Your task to perform on an android device: Empty the shopping cart on ebay. Search for "macbook pro 13 inch" on ebay, select the first entry, and add it to the cart. Image 0: 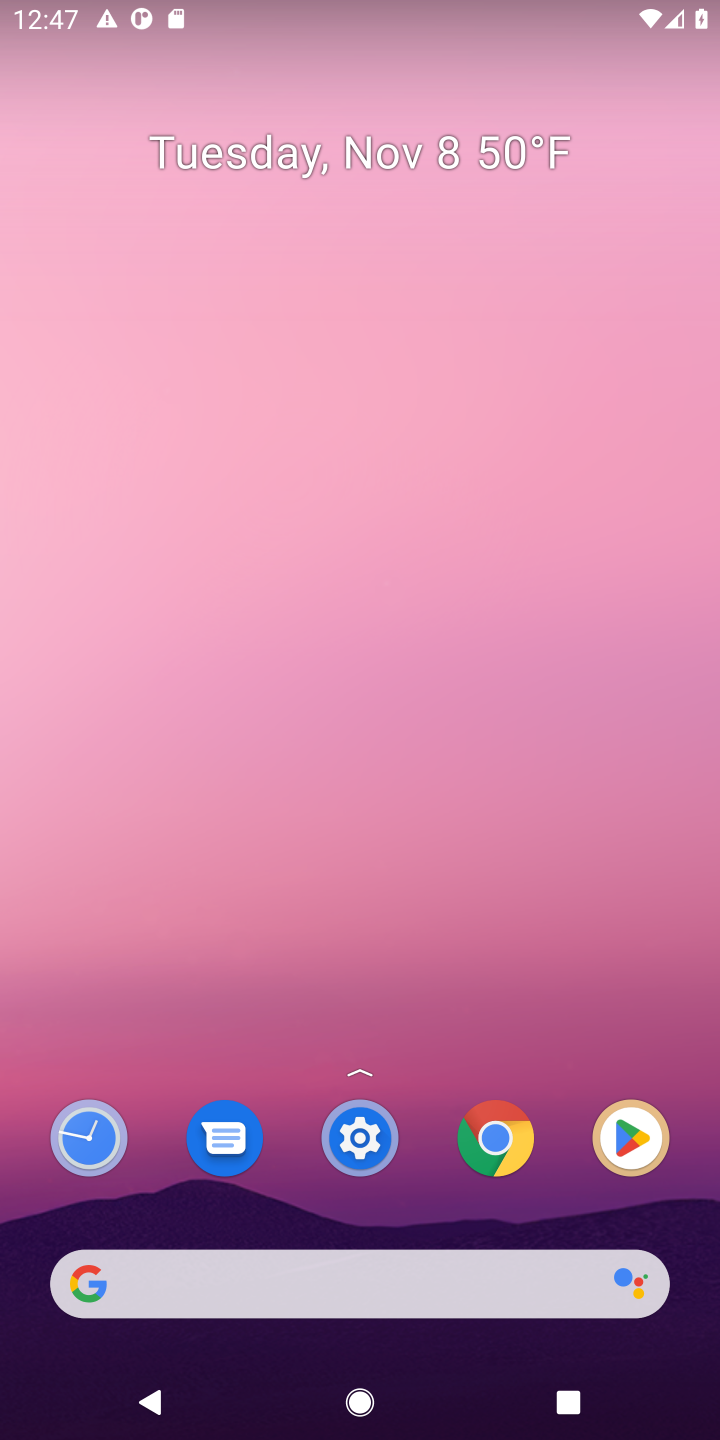
Step 0: click (313, 1300)
Your task to perform on an android device: Empty the shopping cart on ebay. Search for "macbook pro 13 inch" on ebay, select the first entry, and add it to the cart. Image 1: 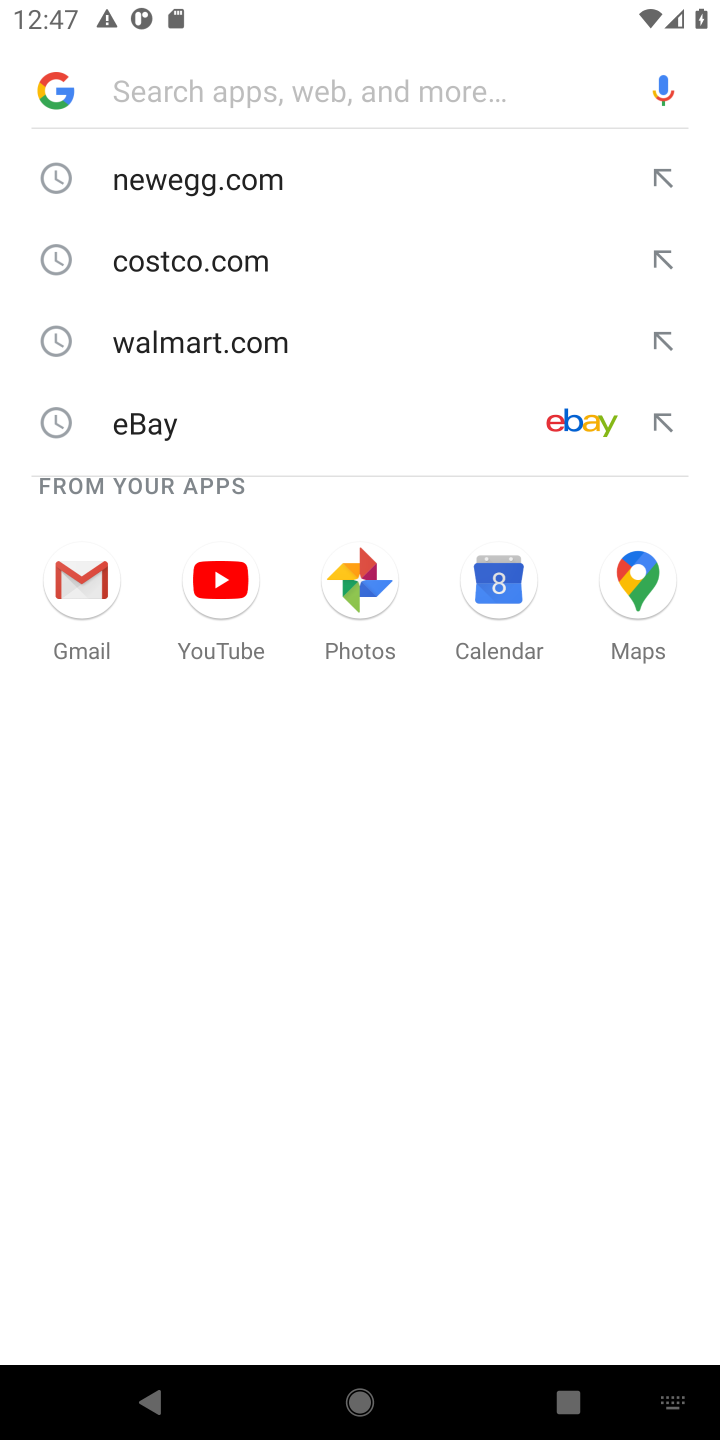
Step 1: click (254, 400)
Your task to perform on an android device: Empty the shopping cart on ebay. Search for "macbook pro 13 inch" on ebay, select the first entry, and add it to the cart. Image 2: 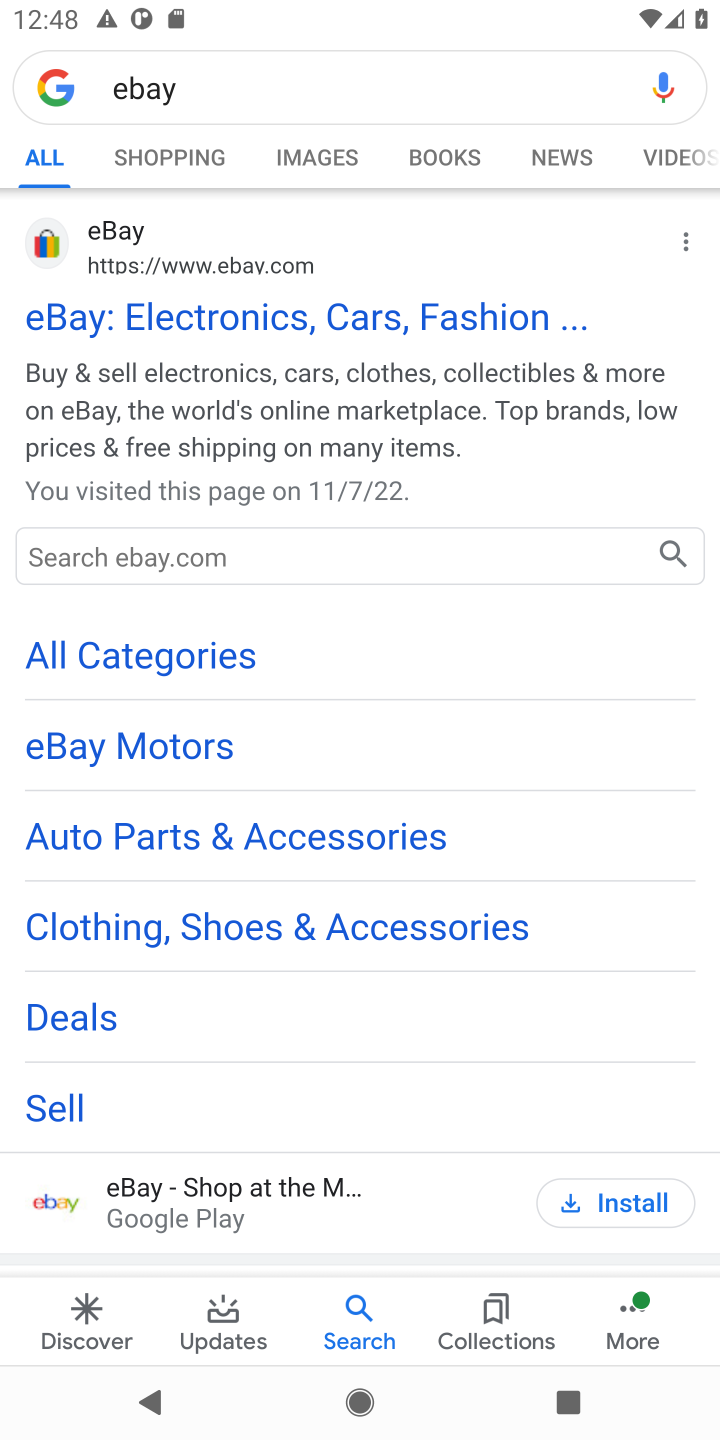
Step 2: click (312, 270)
Your task to perform on an android device: Empty the shopping cart on ebay. Search for "macbook pro 13 inch" on ebay, select the first entry, and add it to the cart. Image 3: 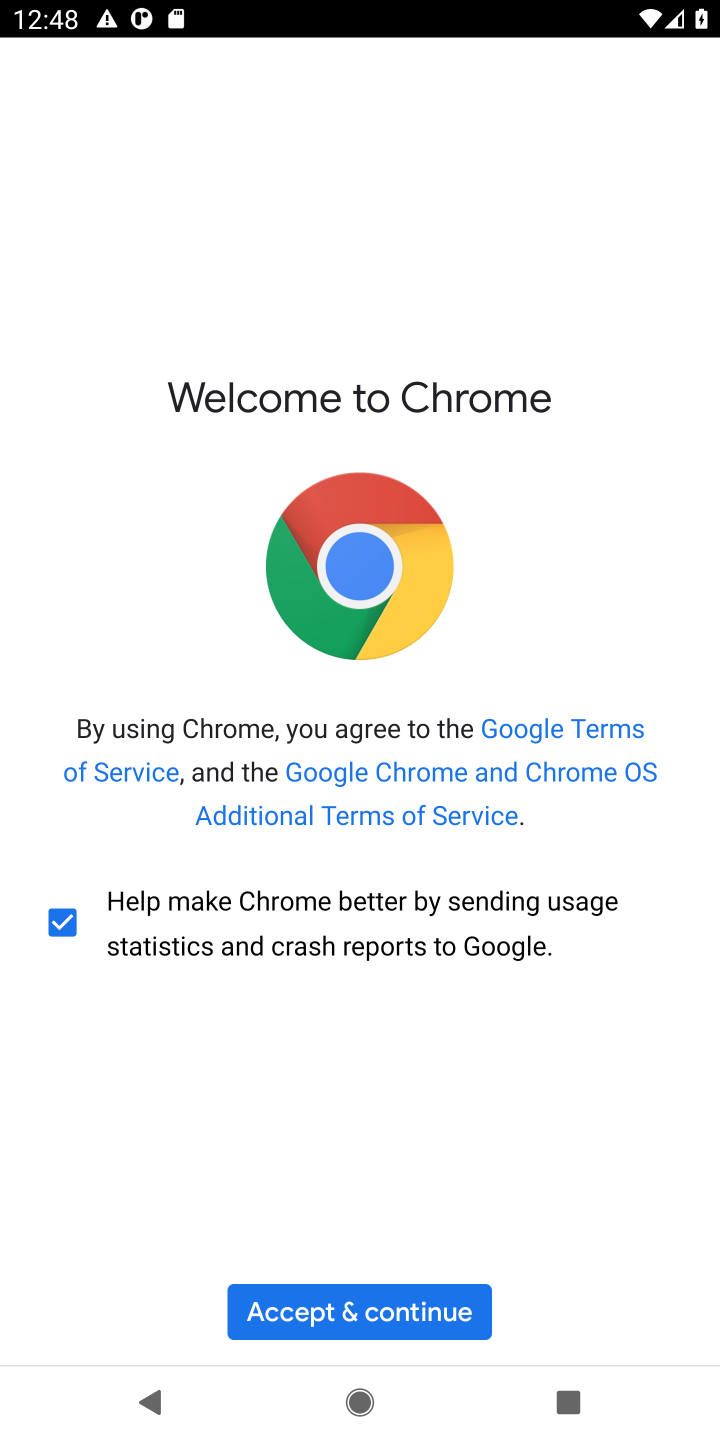
Step 3: click (453, 1287)
Your task to perform on an android device: Empty the shopping cart on ebay. Search for "macbook pro 13 inch" on ebay, select the first entry, and add it to the cart. Image 4: 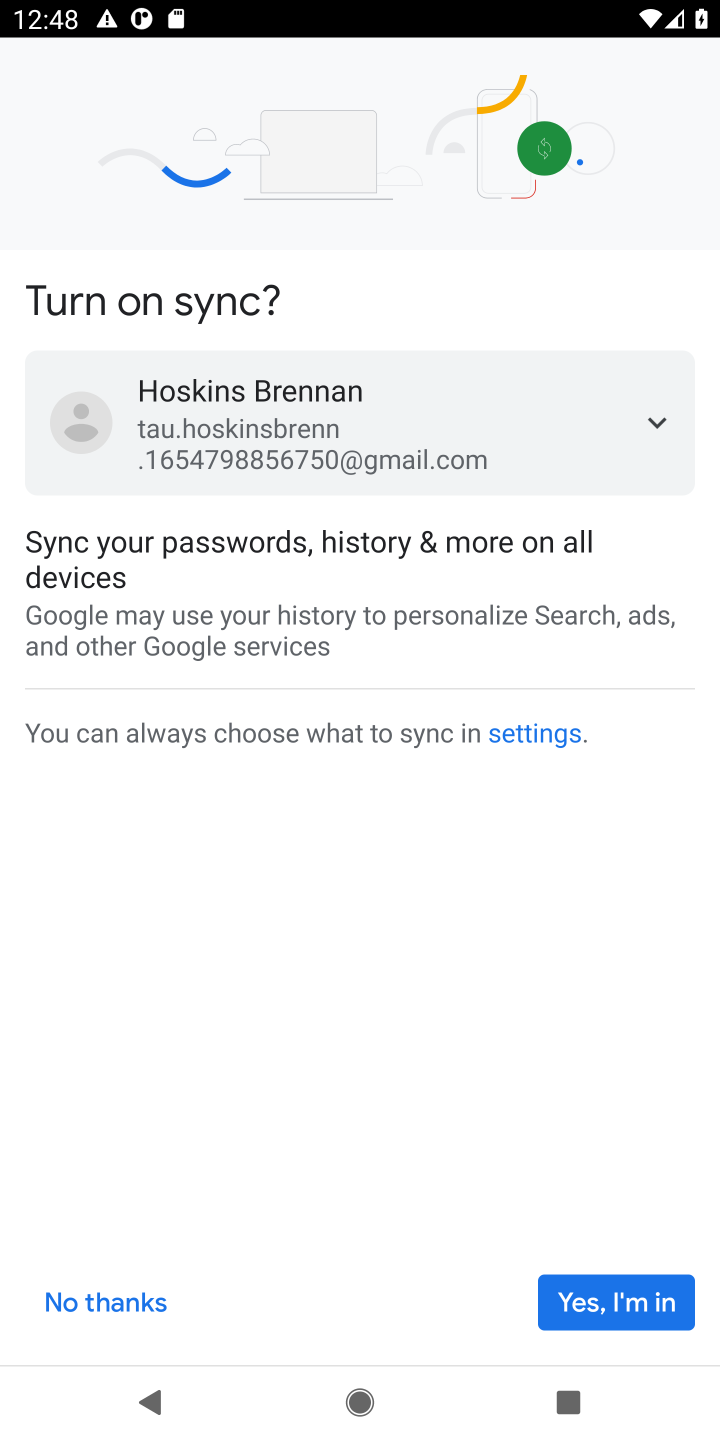
Step 4: click (631, 1319)
Your task to perform on an android device: Empty the shopping cart on ebay. Search for "macbook pro 13 inch" on ebay, select the first entry, and add it to the cart. Image 5: 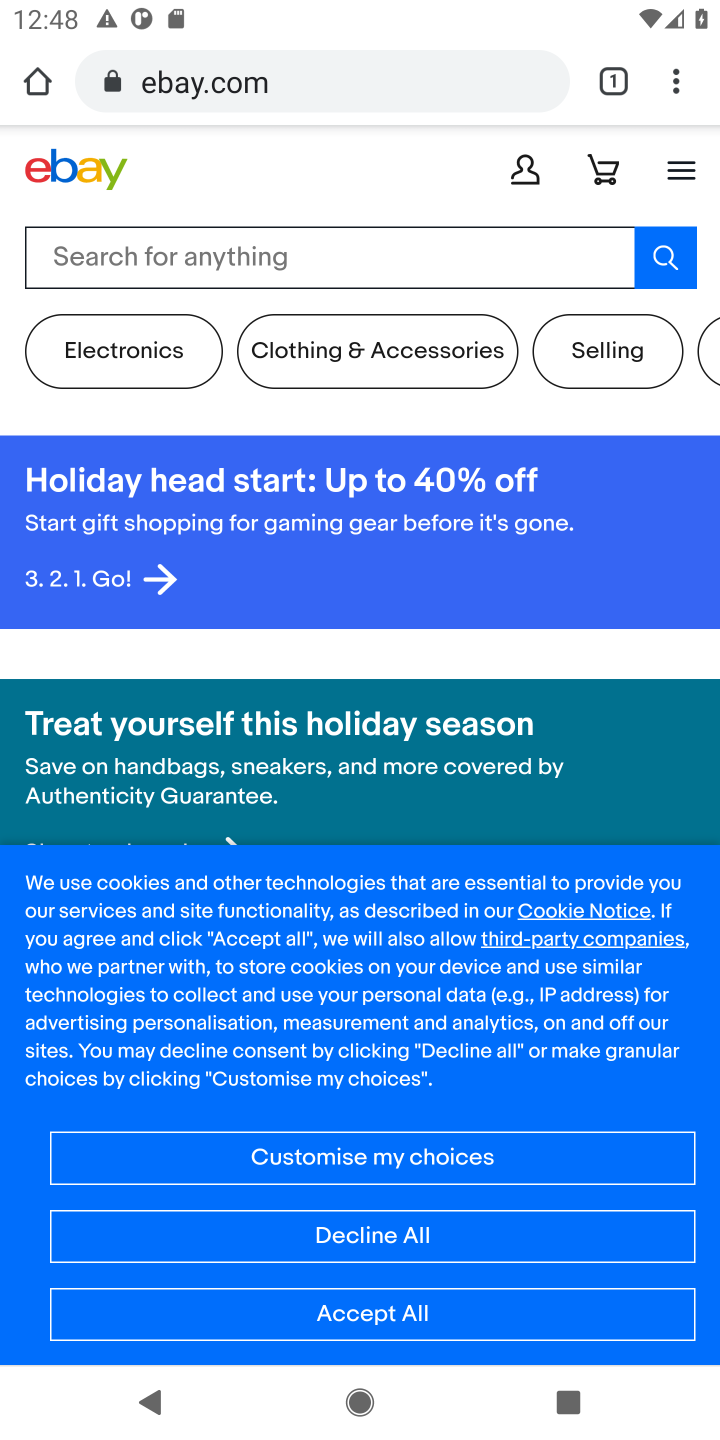
Step 5: click (287, 233)
Your task to perform on an android device: Empty the shopping cart on ebay. Search for "macbook pro 13 inch" on ebay, select the first entry, and add it to the cart. Image 6: 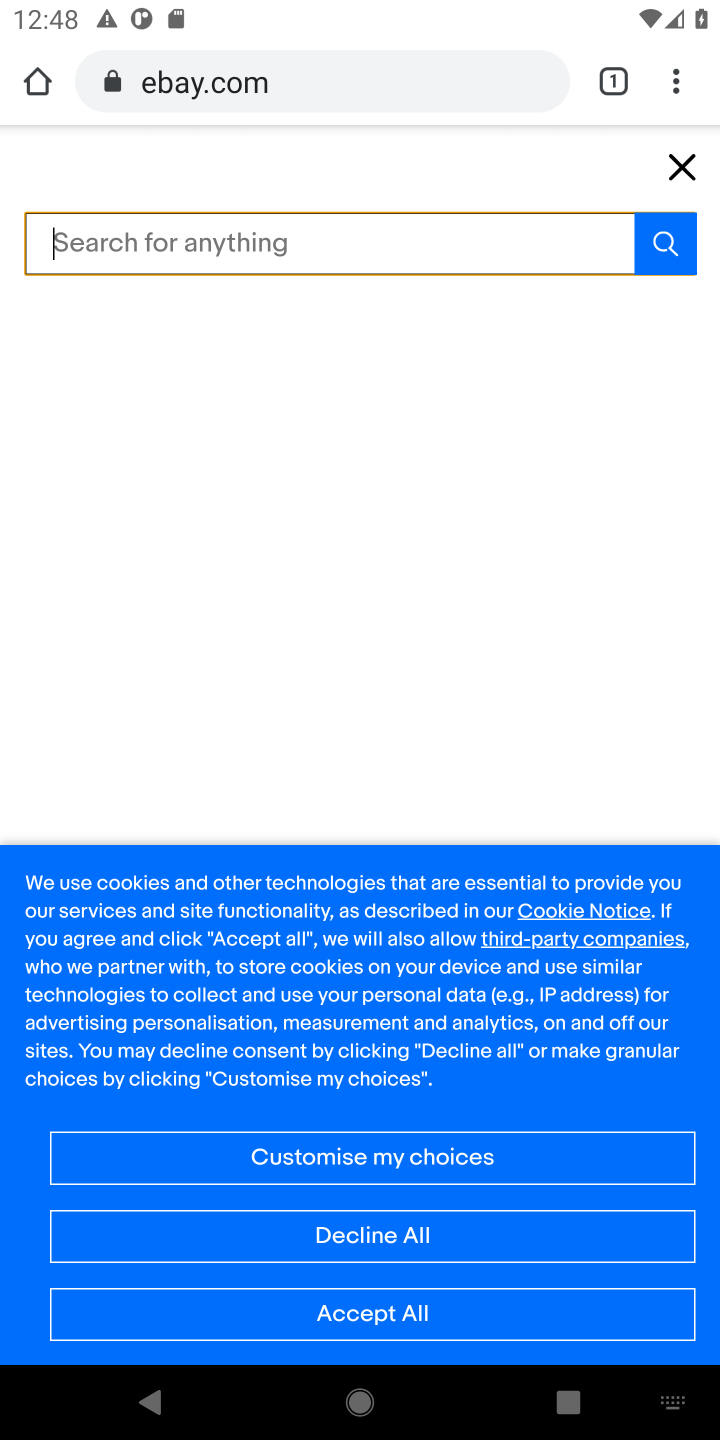
Step 6: type "machbook pro"
Your task to perform on an android device: Empty the shopping cart on ebay. Search for "macbook pro 13 inch" on ebay, select the first entry, and add it to the cart. Image 7: 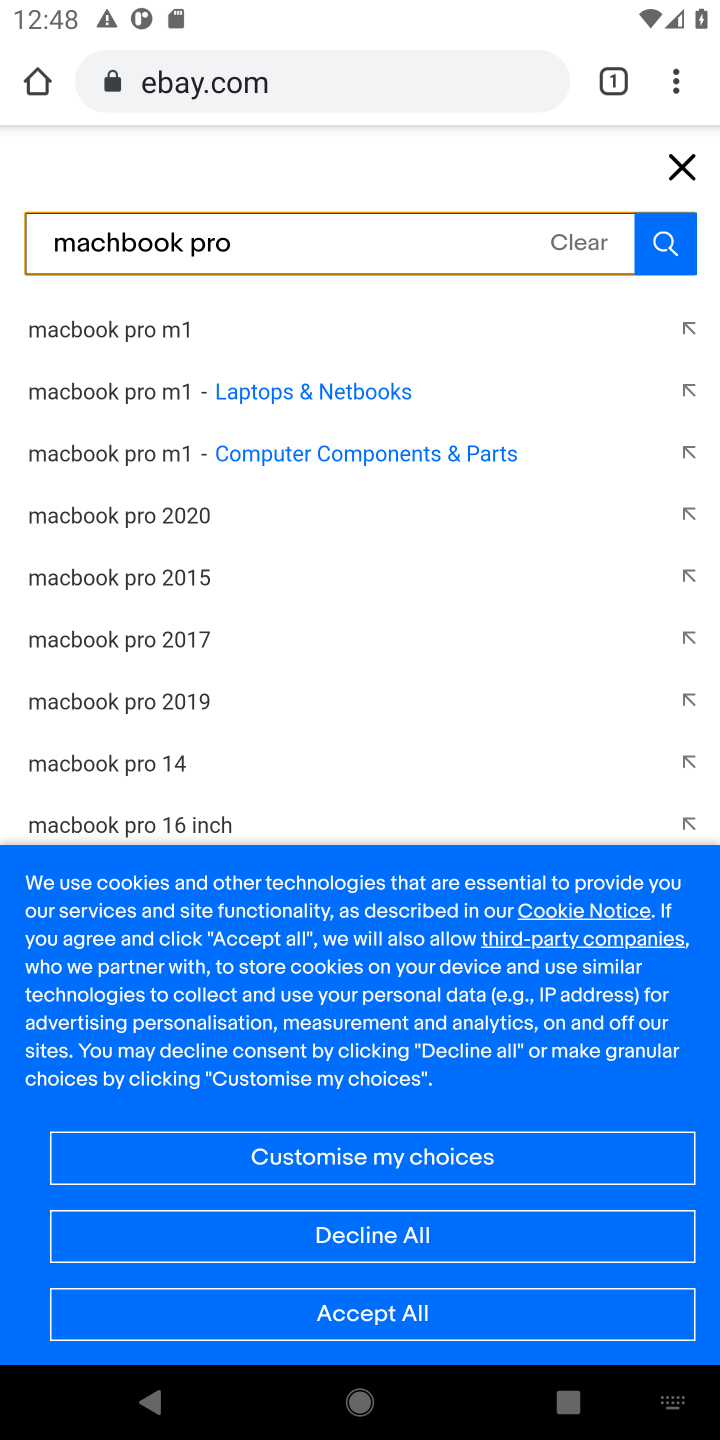
Step 7: click (255, 335)
Your task to perform on an android device: Empty the shopping cart on ebay. Search for "macbook pro 13 inch" on ebay, select the first entry, and add it to the cart. Image 8: 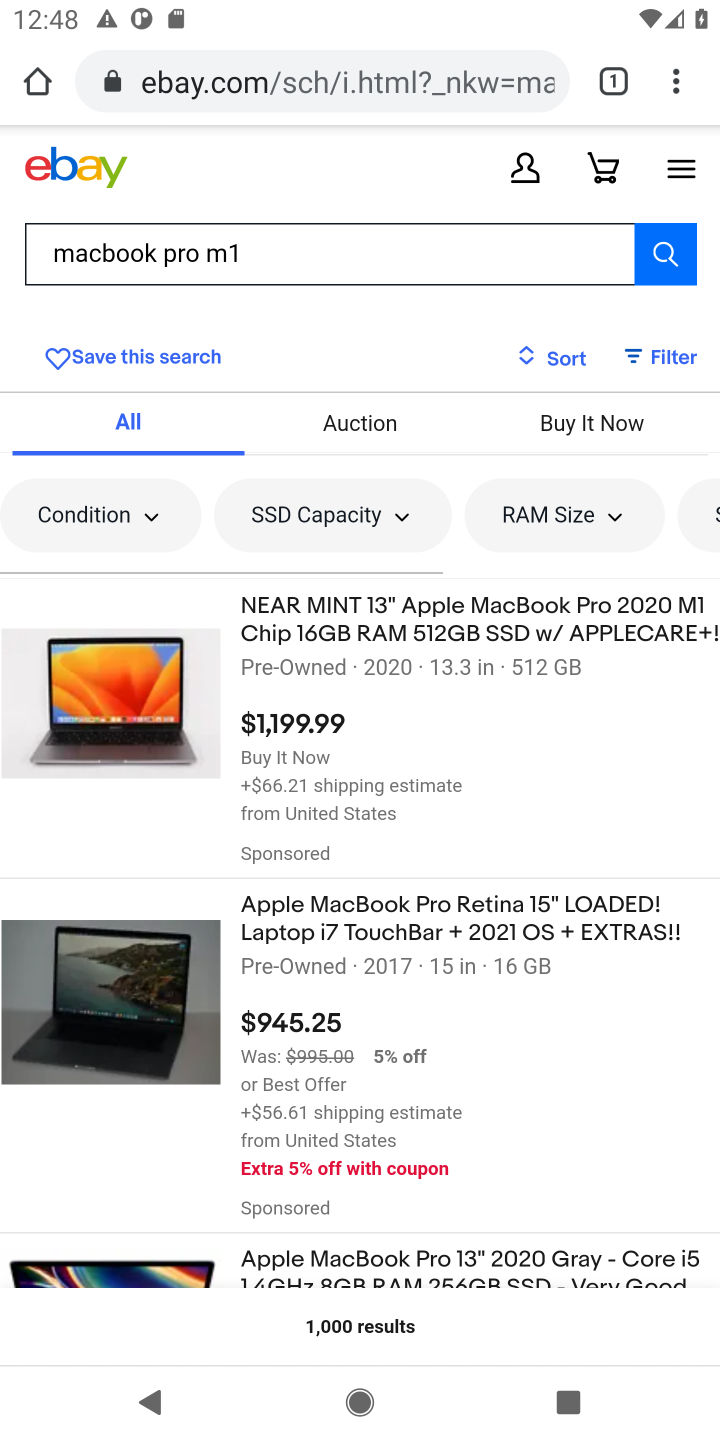
Step 8: click (316, 632)
Your task to perform on an android device: Empty the shopping cart on ebay. Search for "macbook pro 13 inch" on ebay, select the first entry, and add it to the cart. Image 9: 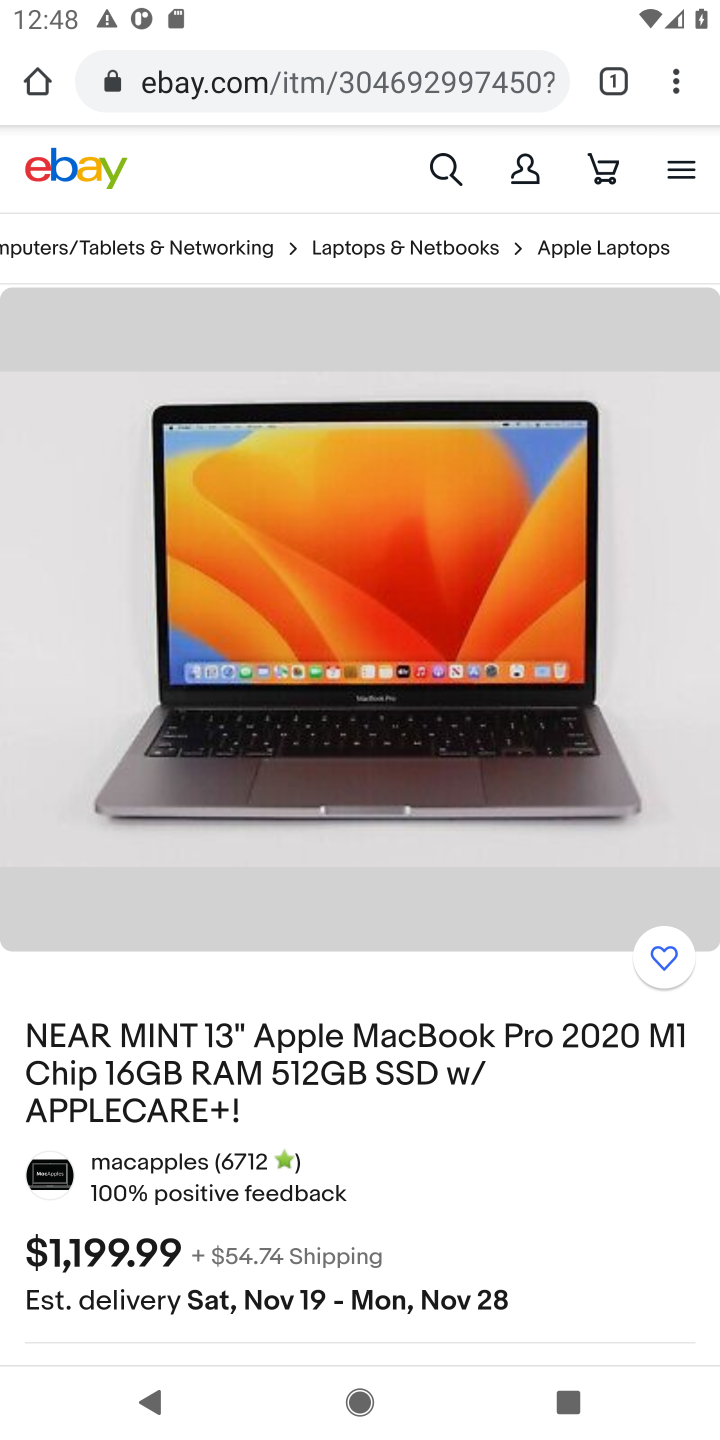
Step 9: task complete